Your task to perform on an android device: read, delete, or share a saved page in the chrome app Image 0: 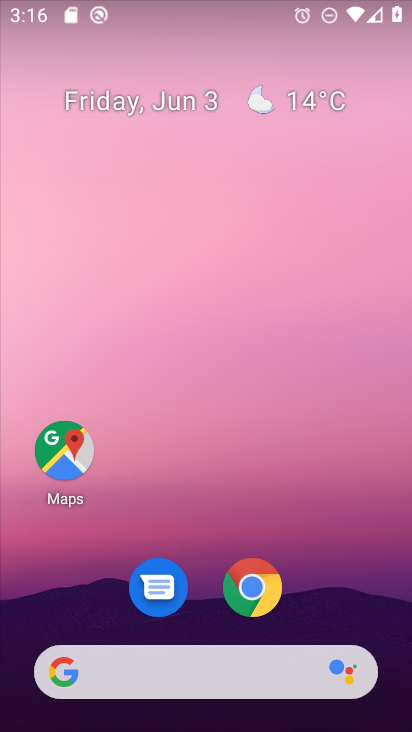
Step 0: click (250, 589)
Your task to perform on an android device: read, delete, or share a saved page in the chrome app Image 1: 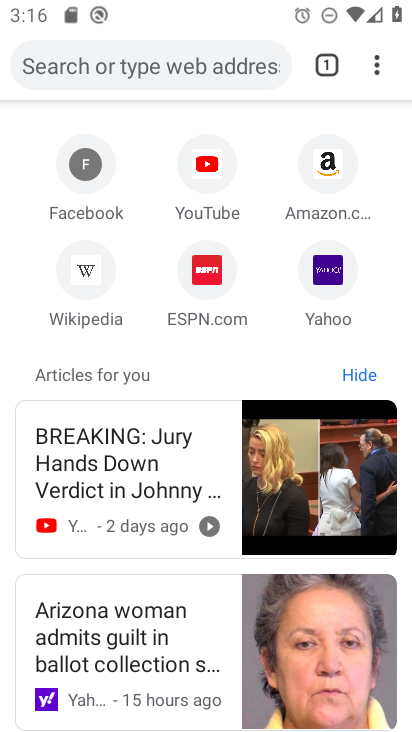
Step 1: click (379, 69)
Your task to perform on an android device: read, delete, or share a saved page in the chrome app Image 2: 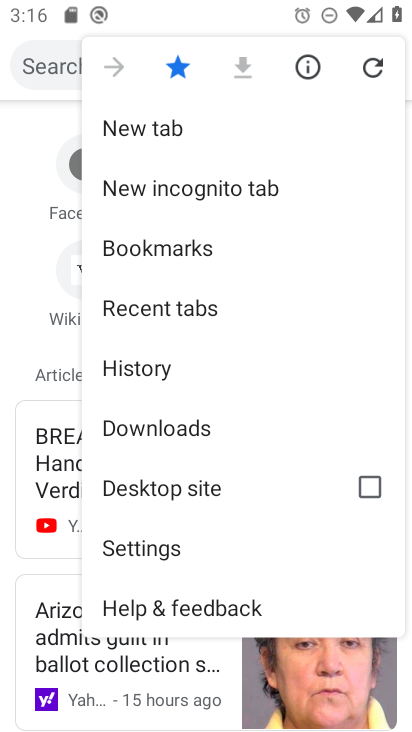
Step 2: click (138, 434)
Your task to perform on an android device: read, delete, or share a saved page in the chrome app Image 3: 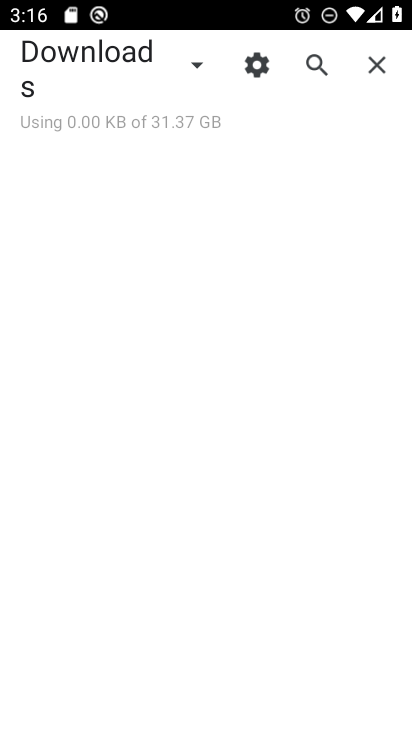
Step 3: click (196, 63)
Your task to perform on an android device: read, delete, or share a saved page in the chrome app Image 4: 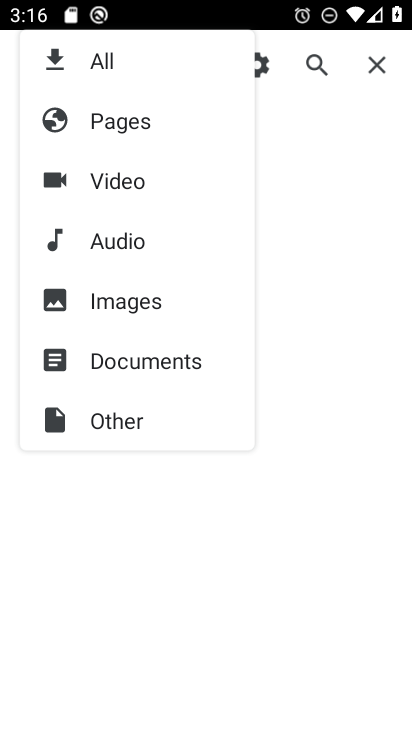
Step 4: click (113, 116)
Your task to perform on an android device: read, delete, or share a saved page in the chrome app Image 5: 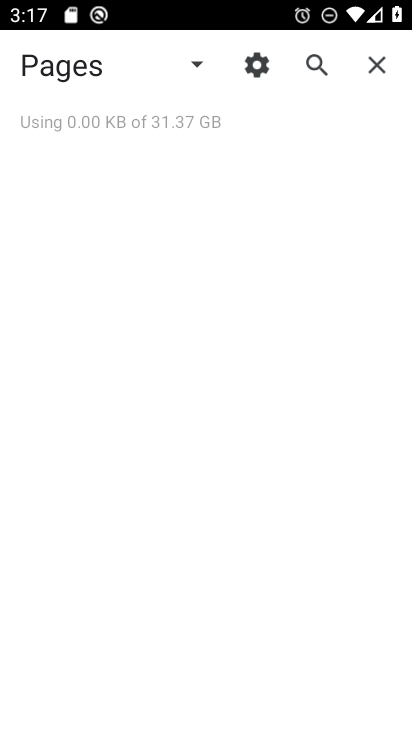
Step 5: task complete